Your task to perform on an android device: Open display settings Image 0: 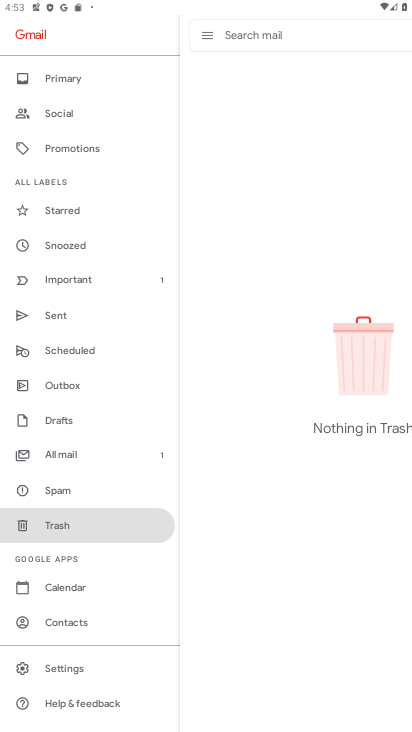
Step 0: click (245, 592)
Your task to perform on an android device: Open display settings Image 1: 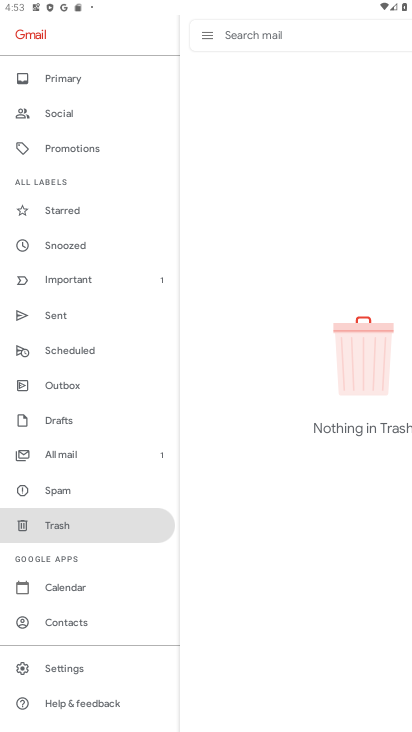
Step 1: press home button
Your task to perform on an android device: Open display settings Image 2: 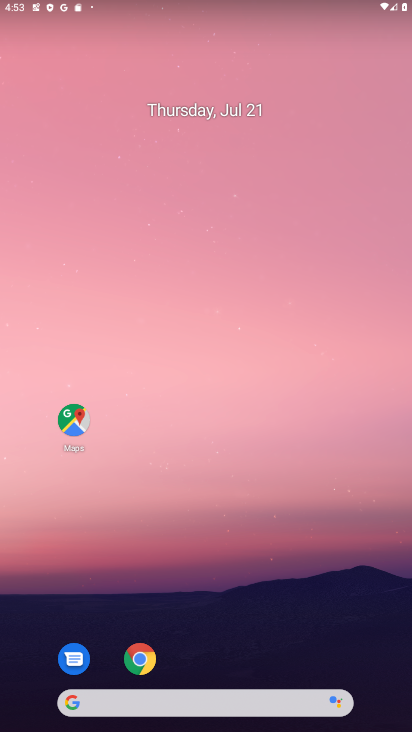
Step 2: drag from (227, 592) to (196, 70)
Your task to perform on an android device: Open display settings Image 3: 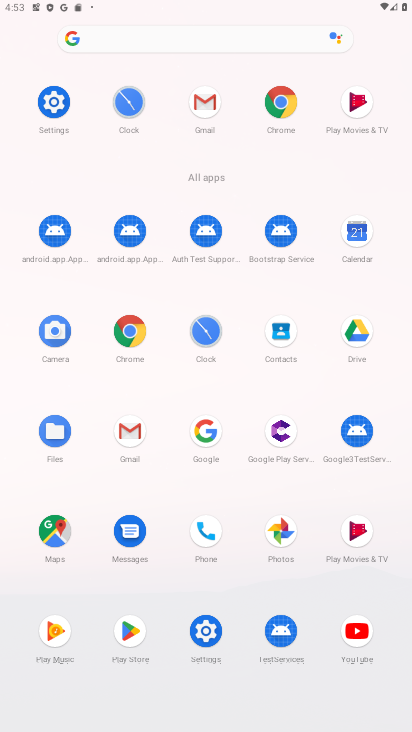
Step 3: click (49, 102)
Your task to perform on an android device: Open display settings Image 4: 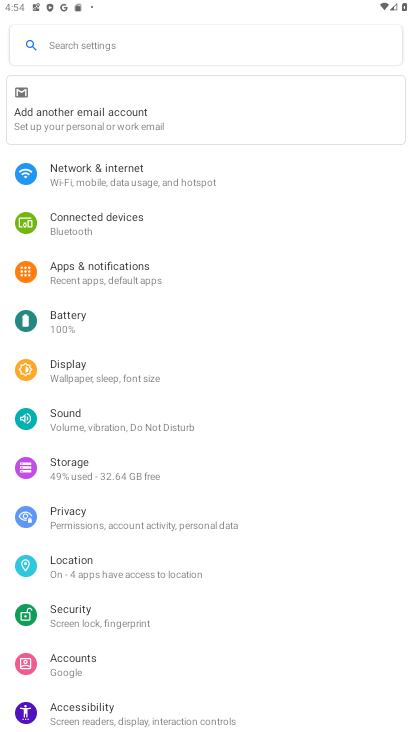
Step 4: click (69, 361)
Your task to perform on an android device: Open display settings Image 5: 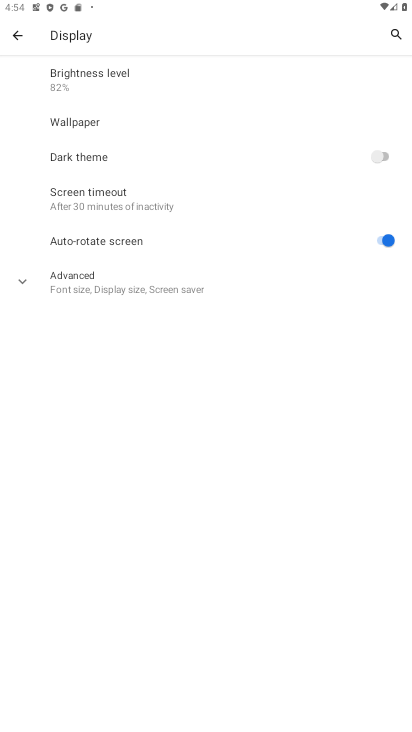
Step 5: task complete